Your task to perform on an android device: Turn off the flashlight Image 0: 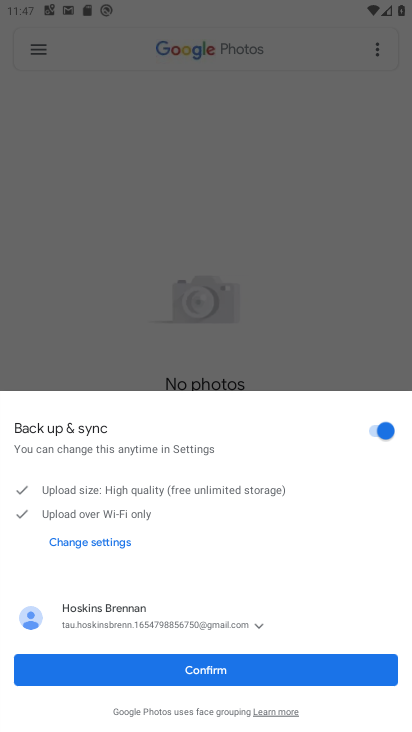
Step 0: press home button
Your task to perform on an android device: Turn off the flashlight Image 1: 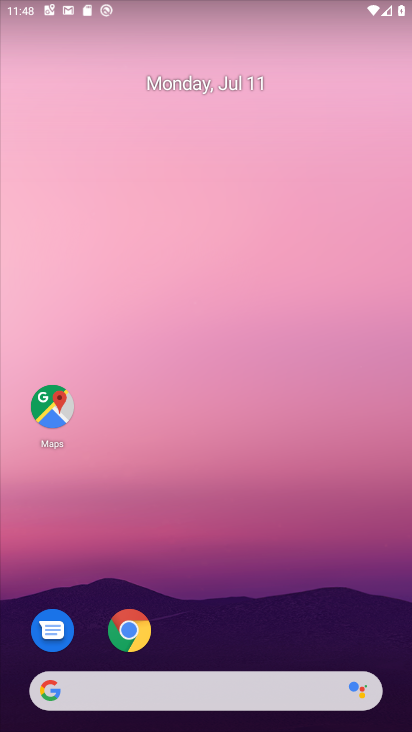
Step 1: task complete